Your task to perform on an android device: Is it going to rain today? Image 0: 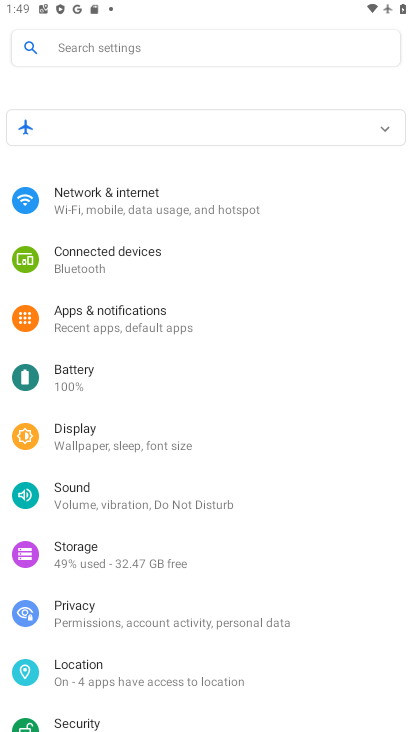
Step 0: press home button
Your task to perform on an android device: Is it going to rain today? Image 1: 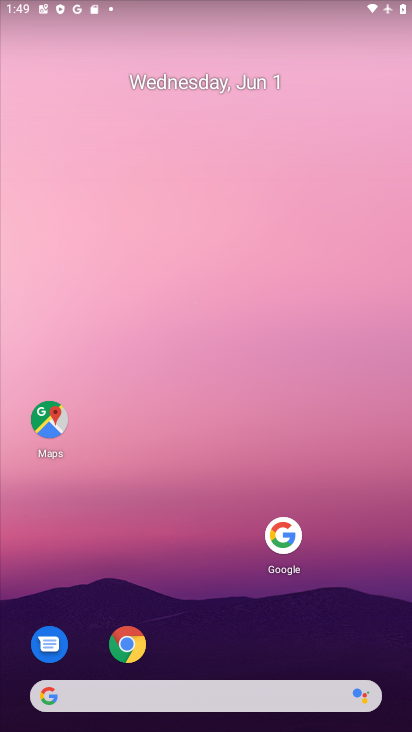
Step 1: click (45, 698)
Your task to perform on an android device: Is it going to rain today? Image 2: 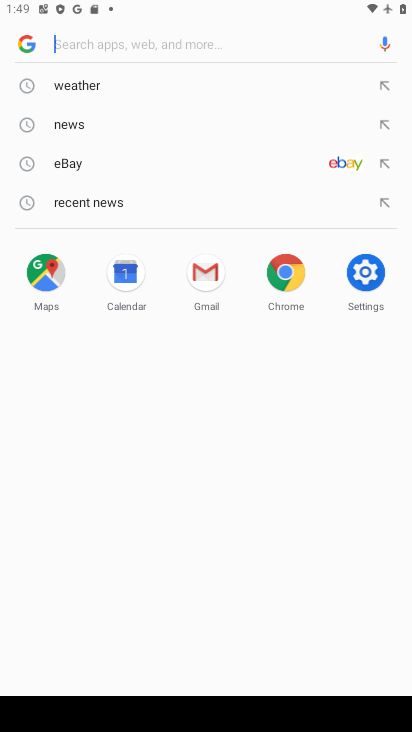
Step 2: click (87, 80)
Your task to perform on an android device: Is it going to rain today? Image 3: 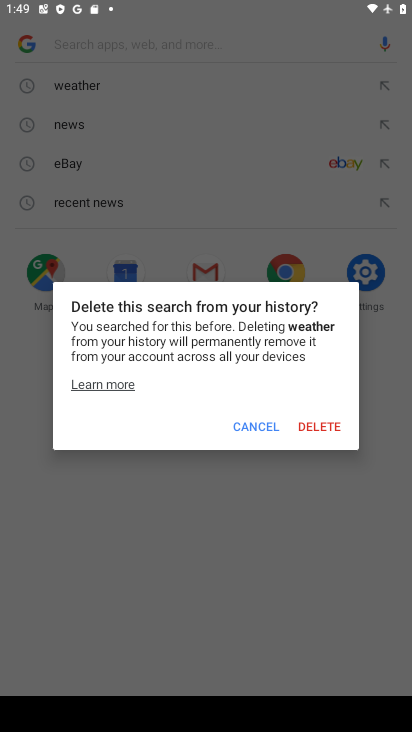
Step 3: click (260, 432)
Your task to perform on an android device: Is it going to rain today? Image 4: 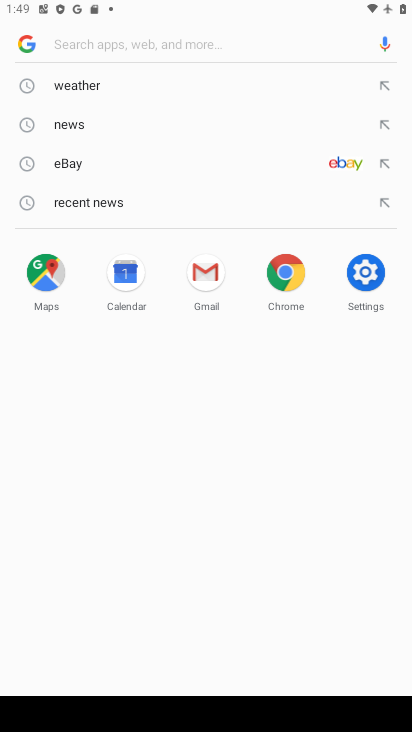
Step 4: click (100, 88)
Your task to perform on an android device: Is it going to rain today? Image 5: 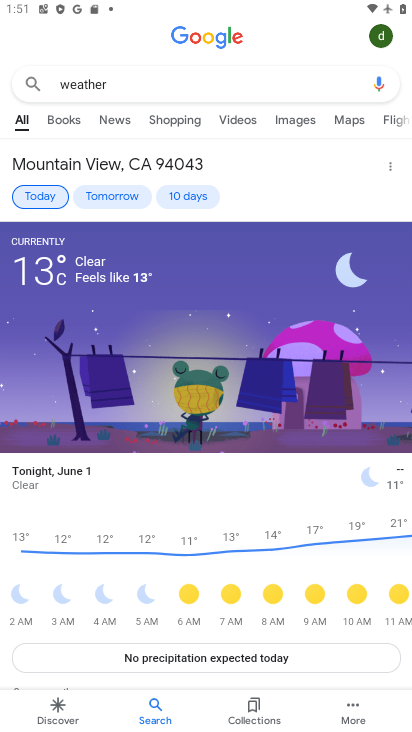
Step 5: task complete